Your task to perform on an android device: turn off location history Image 0: 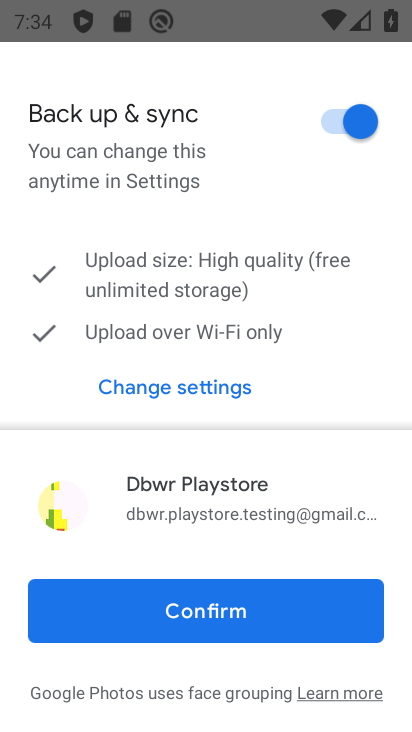
Step 0: press home button
Your task to perform on an android device: turn off location history Image 1: 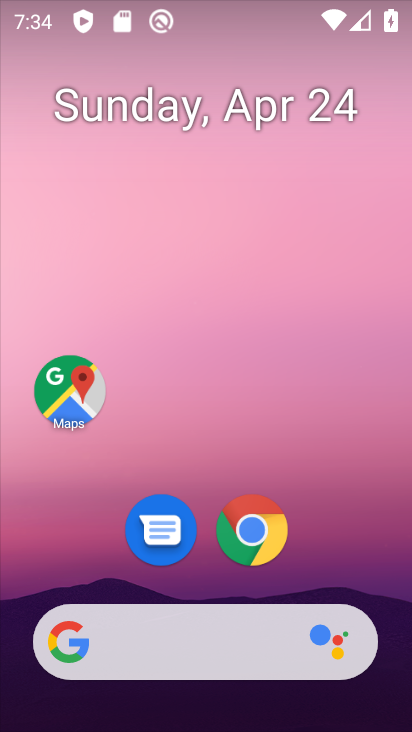
Step 1: click (39, 393)
Your task to perform on an android device: turn off location history Image 2: 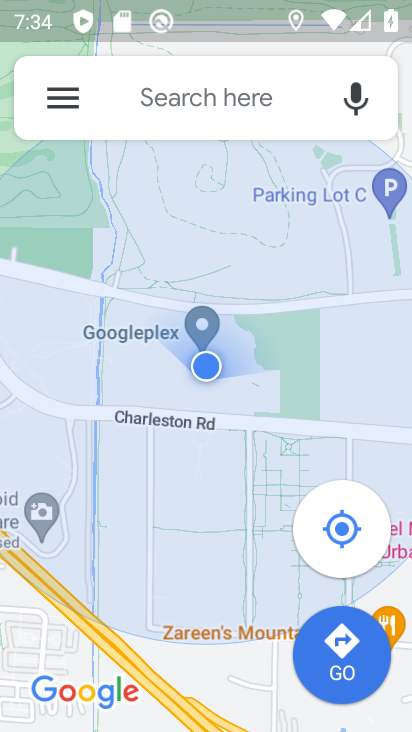
Step 2: click (82, 89)
Your task to perform on an android device: turn off location history Image 3: 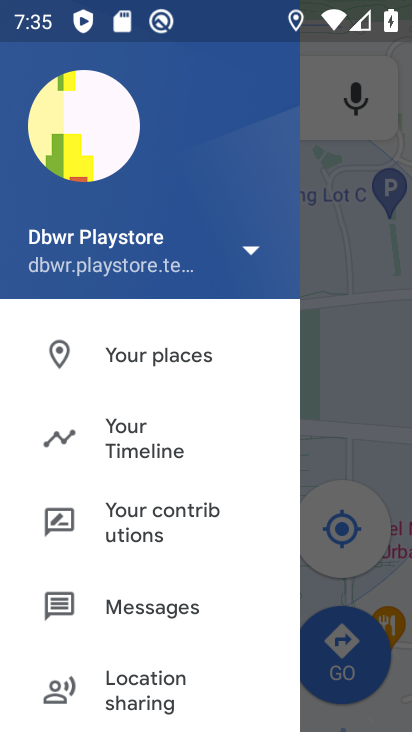
Step 3: click (204, 452)
Your task to perform on an android device: turn off location history Image 4: 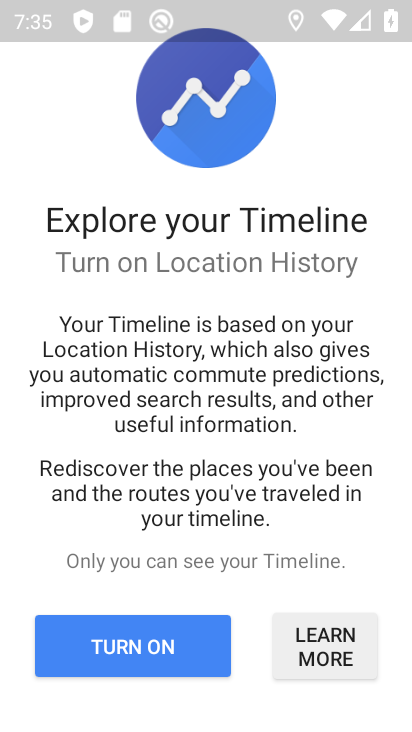
Step 4: click (146, 648)
Your task to perform on an android device: turn off location history Image 5: 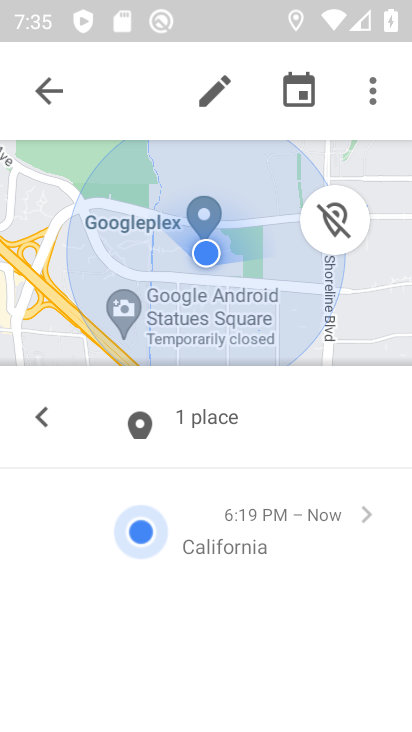
Step 5: click (146, 648)
Your task to perform on an android device: turn off location history Image 6: 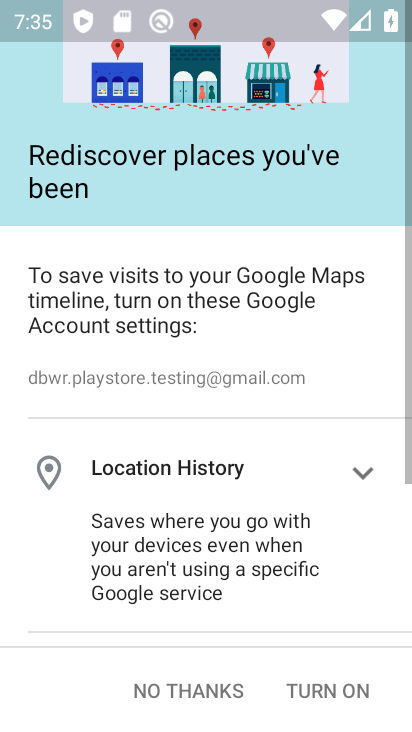
Step 6: click (379, 82)
Your task to perform on an android device: turn off location history Image 7: 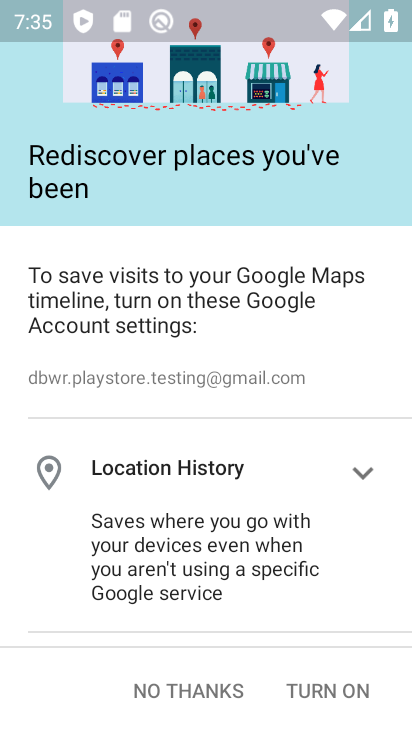
Step 7: drag from (214, 568) to (281, 183)
Your task to perform on an android device: turn off location history Image 8: 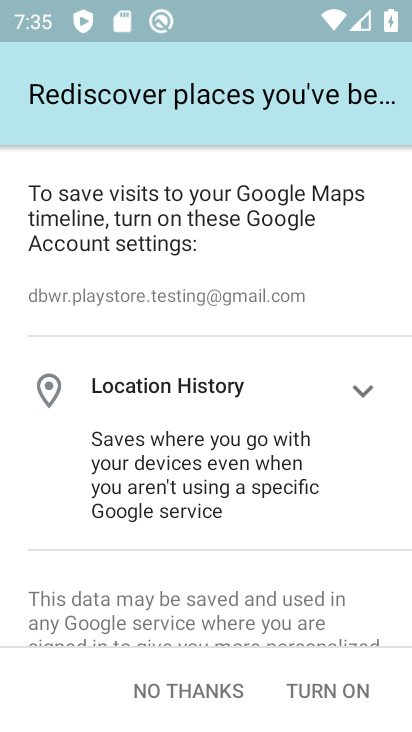
Step 8: click (231, 411)
Your task to perform on an android device: turn off location history Image 9: 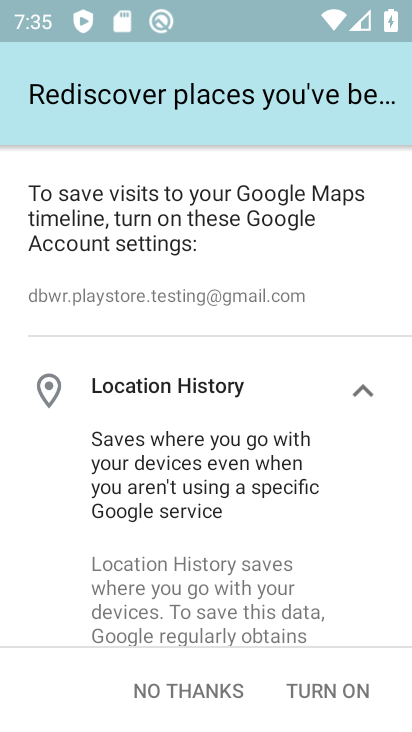
Step 9: task complete